Your task to perform on an android device: turn off location Image 0: 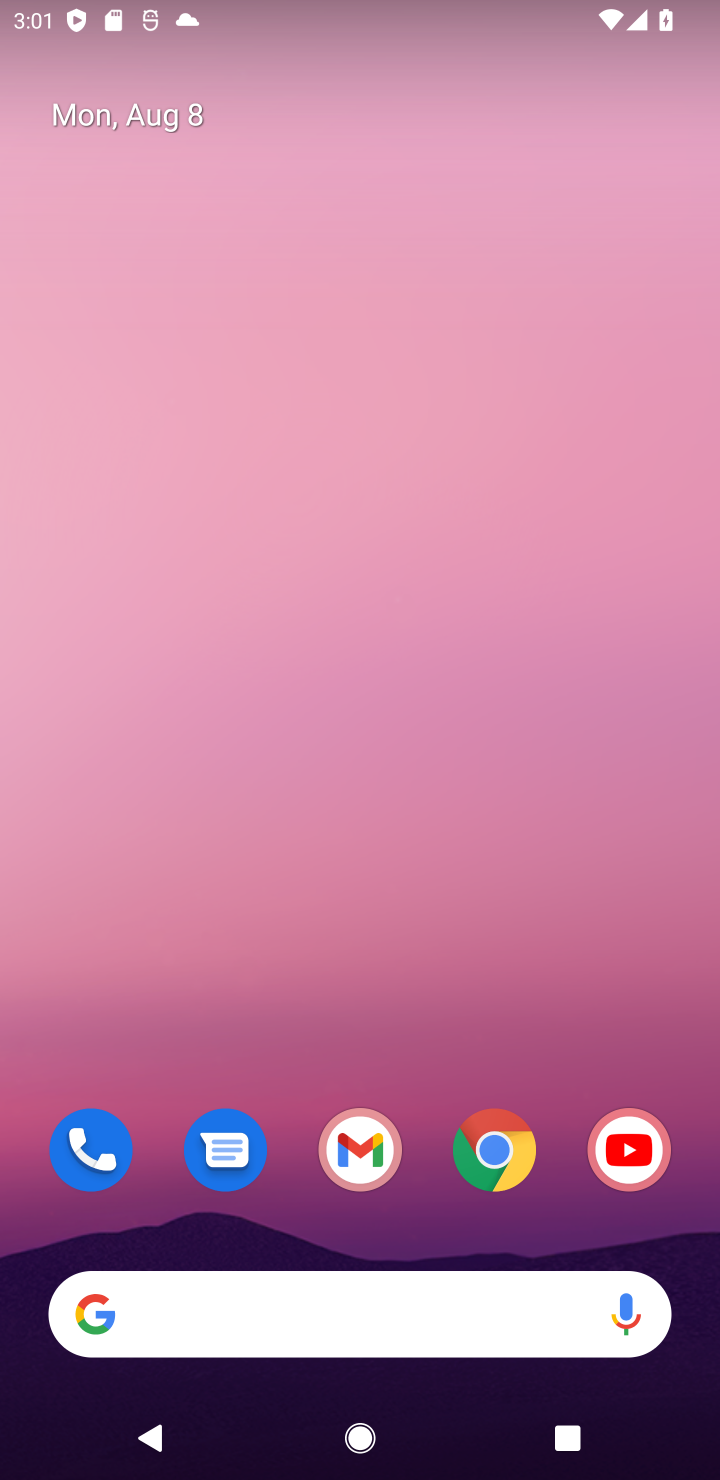
Step 0: drag from (30, 1397) to (342, 614)
Your task to perform on an android device: turn off location Image 1: 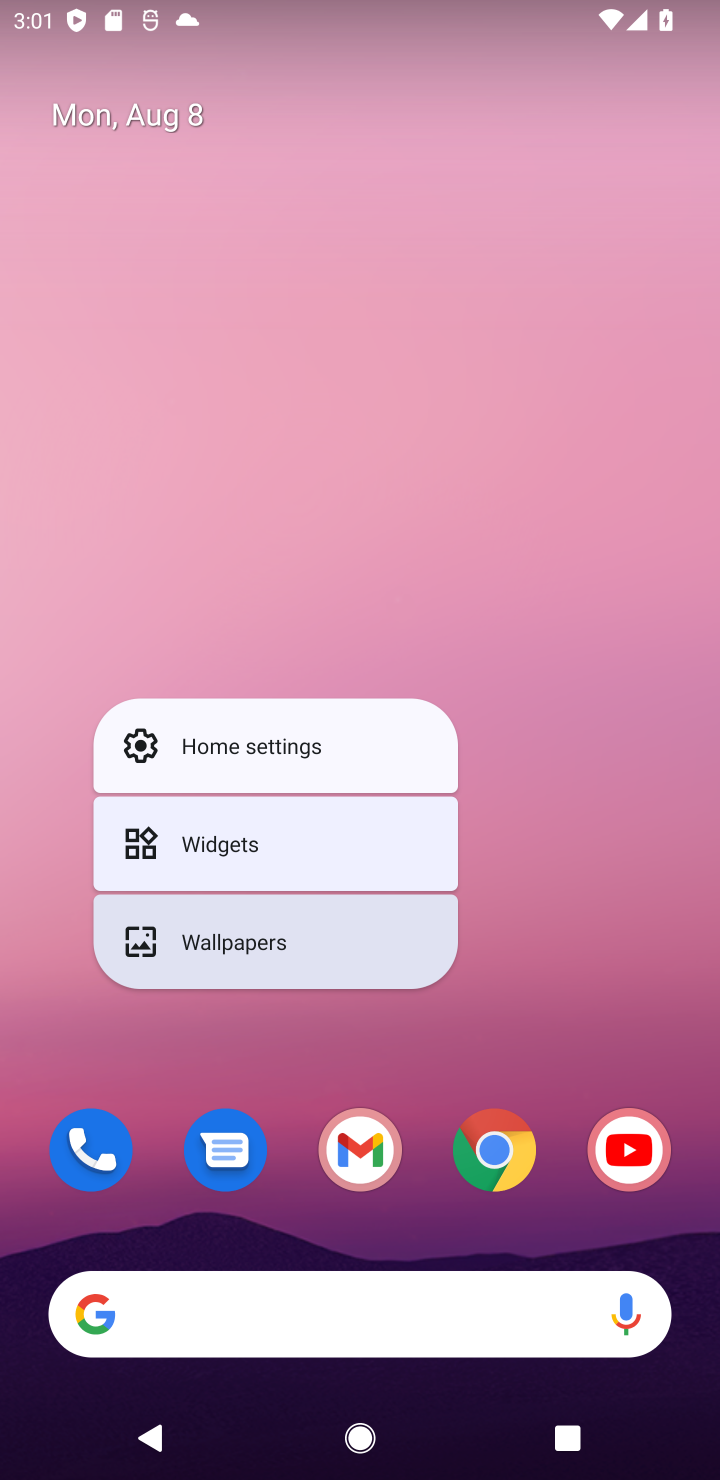
Step 1: click (34, 1376)
Your task to perform on an android device: turn off location Image 2: 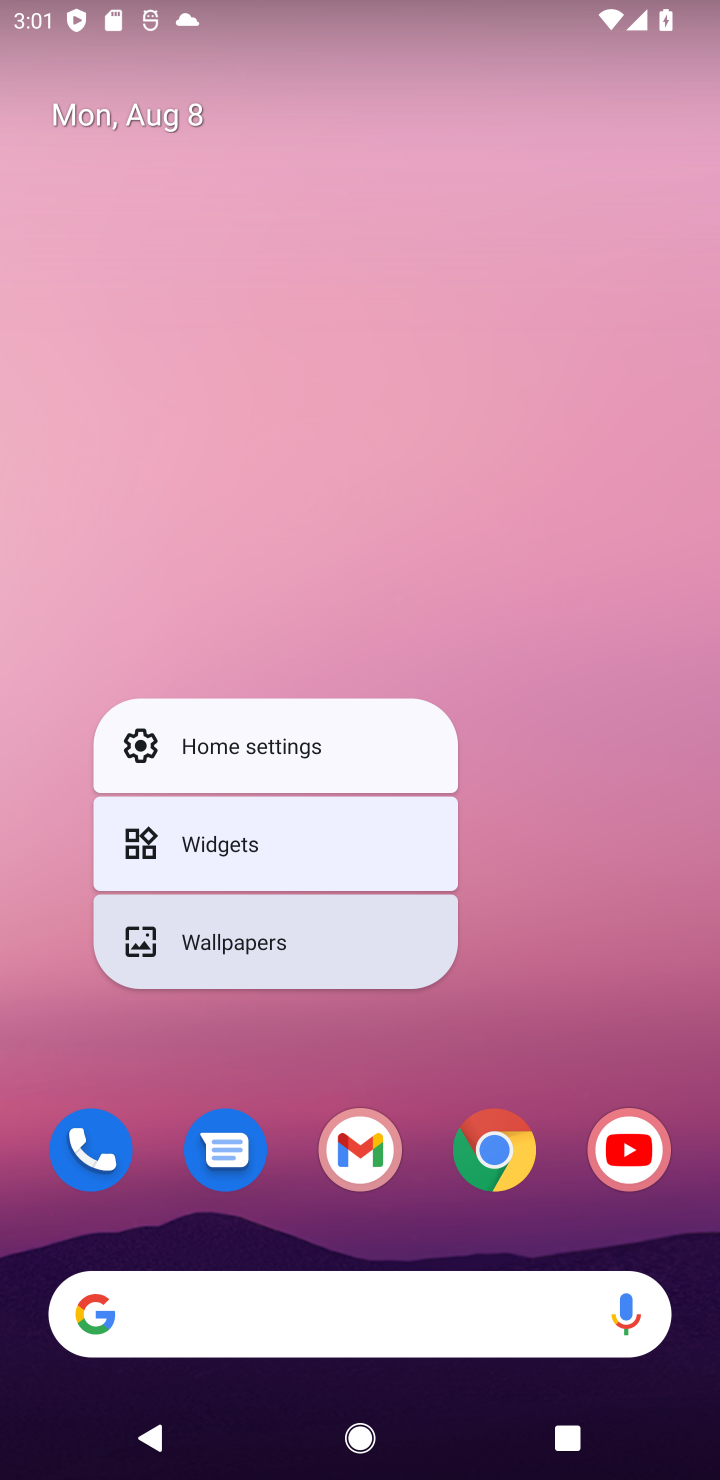
Step 2: drag from (34, 1376) to (437, 499)
Your task to perform on an android device: turn off location Image 3: 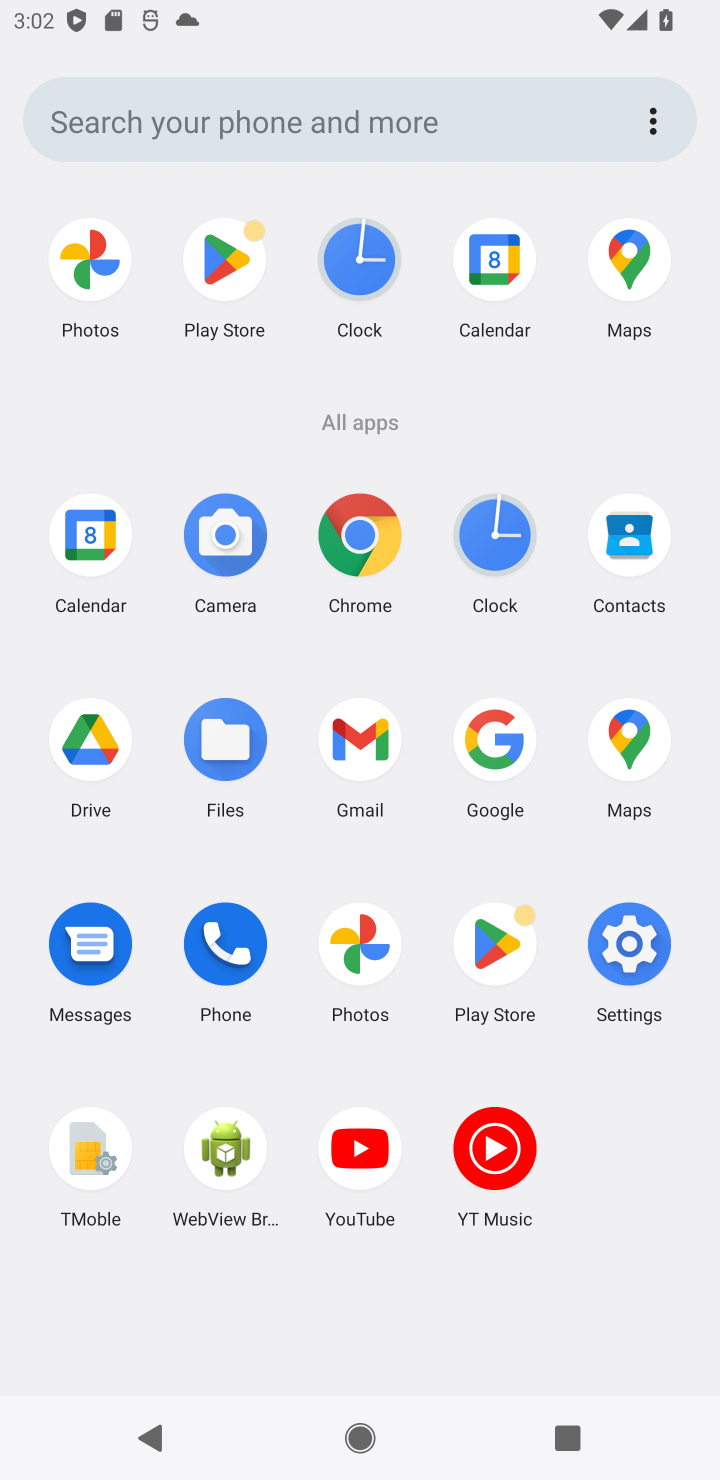
Step 3: click (645, 974)
Your task to perform on an android device: turn off location Image 4: 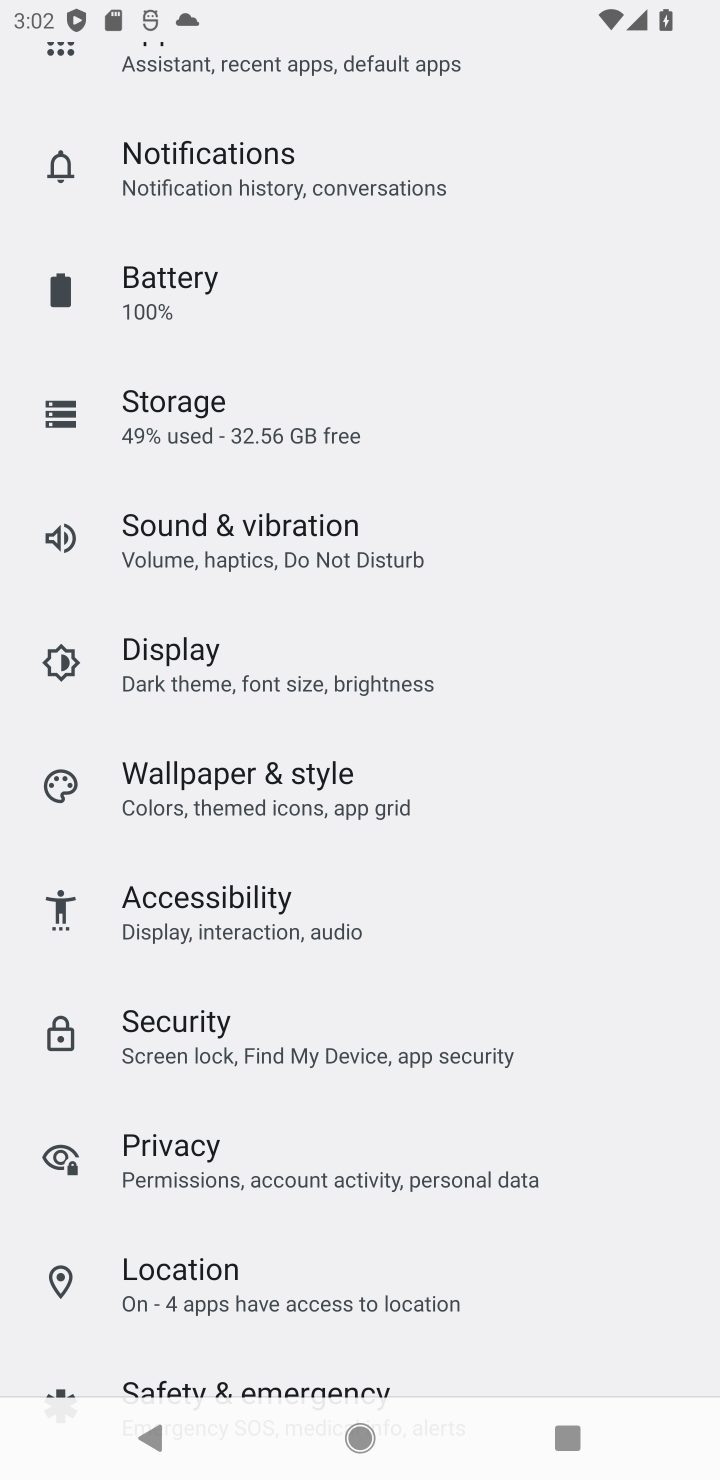
Step 4: drag from (583, 1325) to (601, 1067)
Your task to perform on an android device: turn off location Image 5: 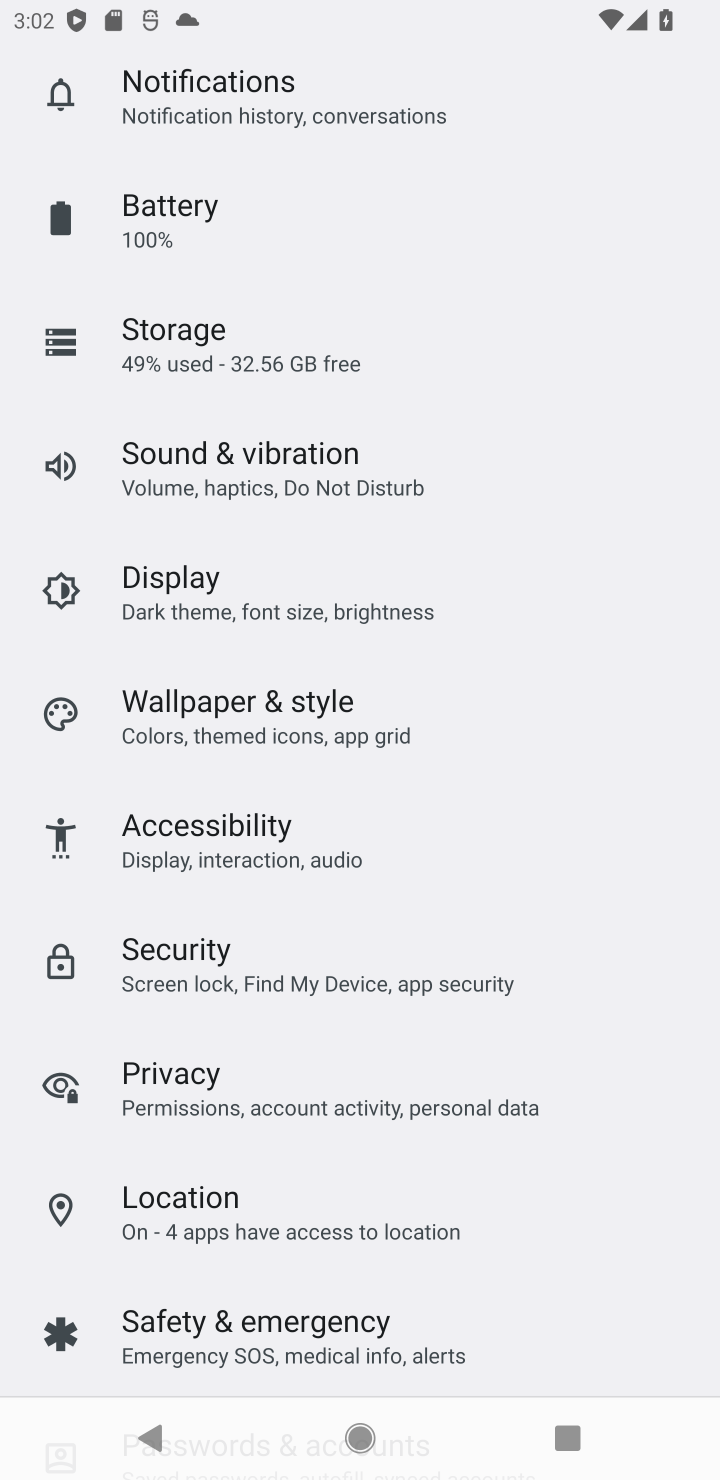
Step 5: click (258, 1212)
Your task to perform on an android device: turn off location Image 6: 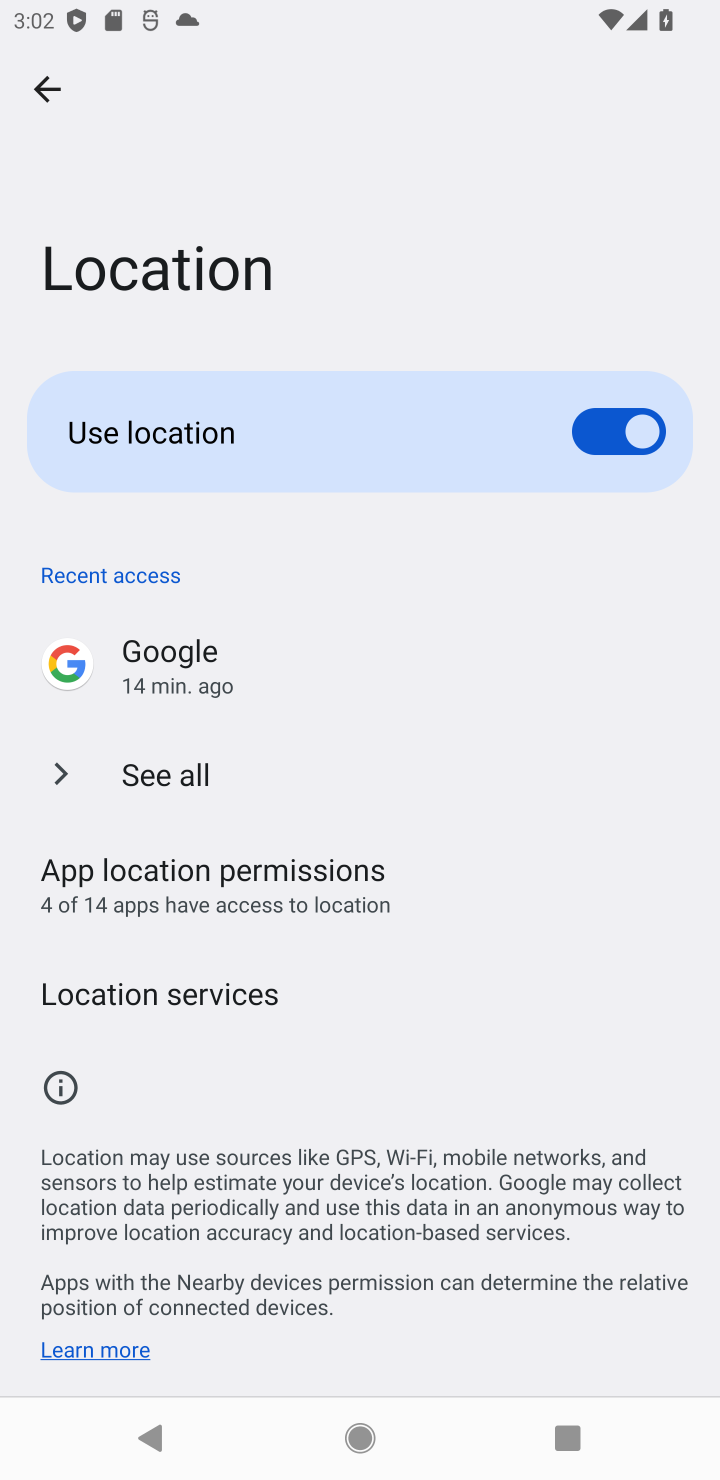
Step 6: drag from (664, 1335) to (675, 658)
Your task to perform on an android device: turn off location Image 7: 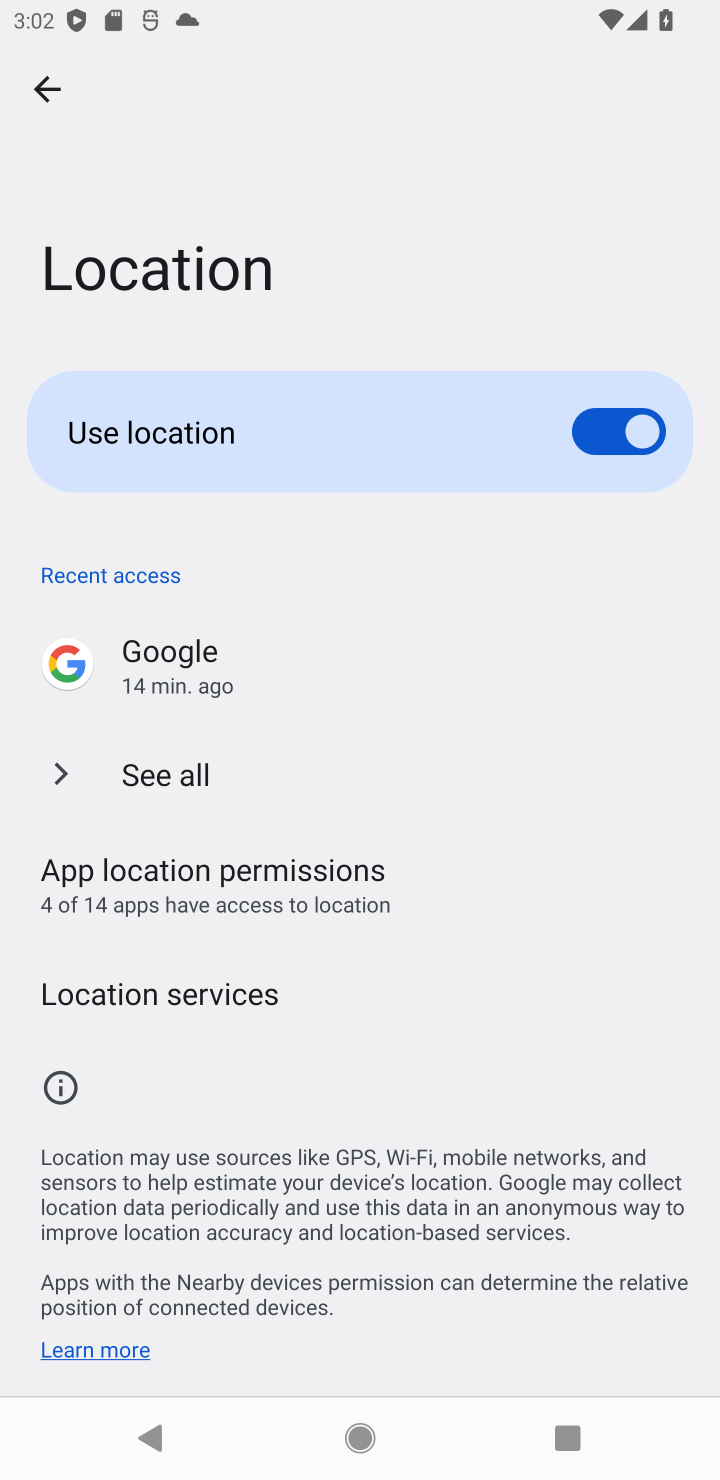
Step 7: click (658, 440)
Your task to perform on an android device: turn off location Image 8: 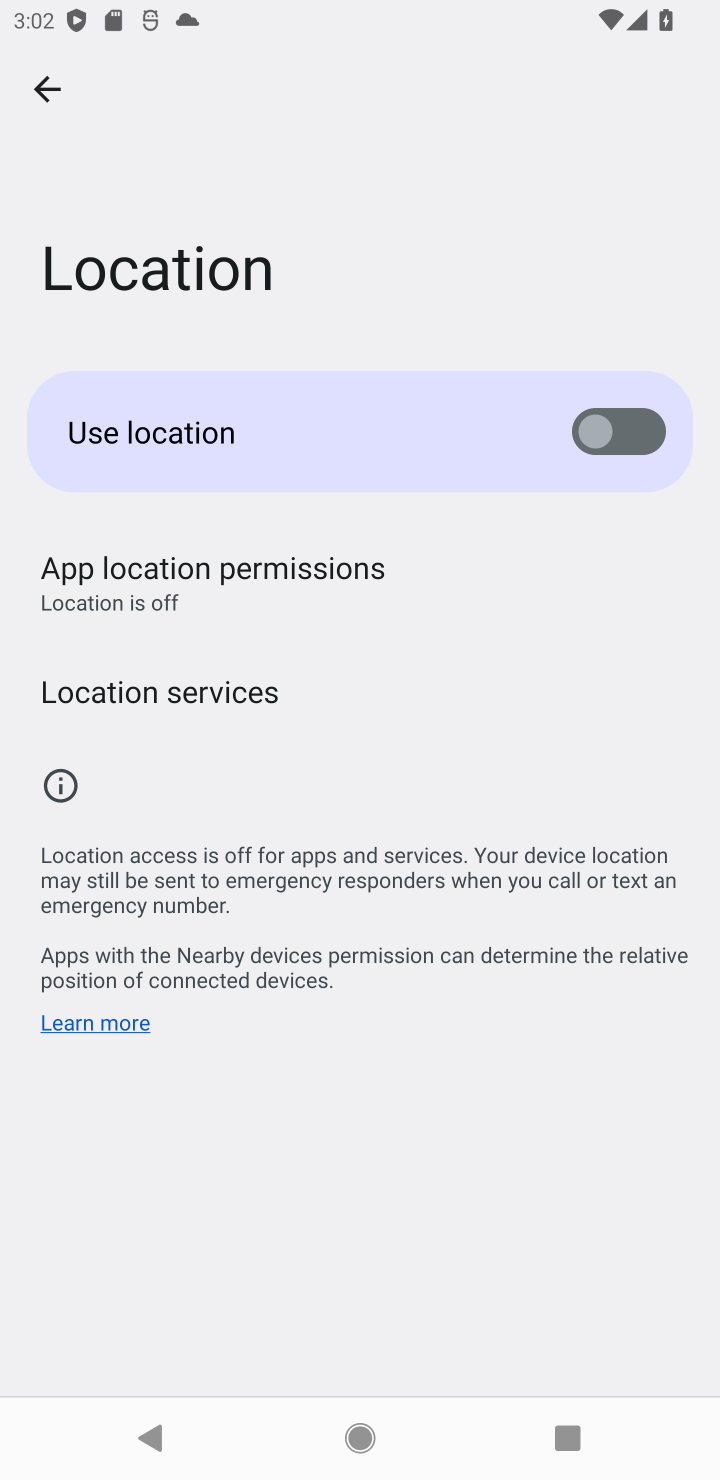
Step 8: task complete